Your task to perform on an android device: When is my next appointment? Image 0: 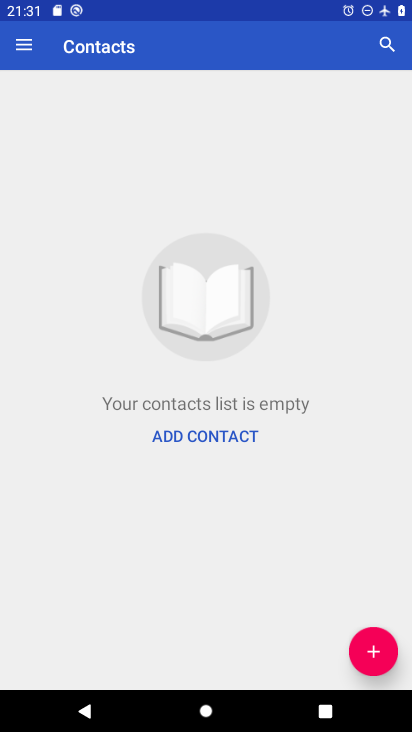
Step 0: press home button
Your task to perform on an android device: When is my next appointment? Image 1: 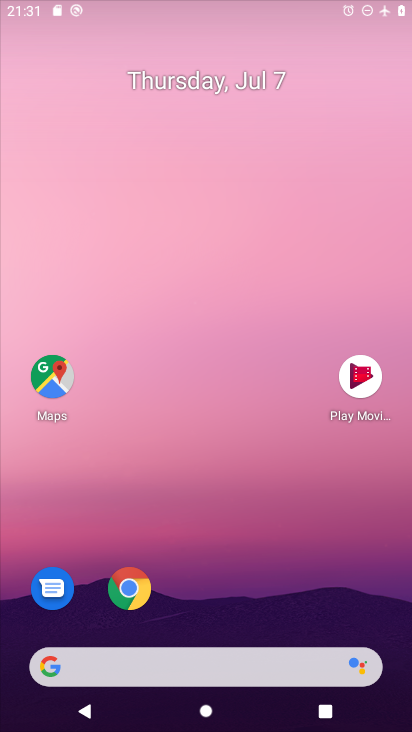
Step 1: drag from (234, 587) to (251, 146)
Your task to perform on an android device: When is my next appointment? Image 2: 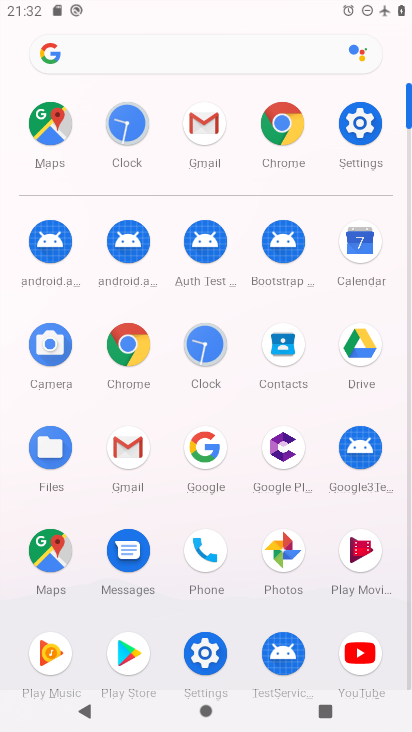
Step 2: click (359, 241)
Your task to perform on an android device: When is my next appointment? Image 3: 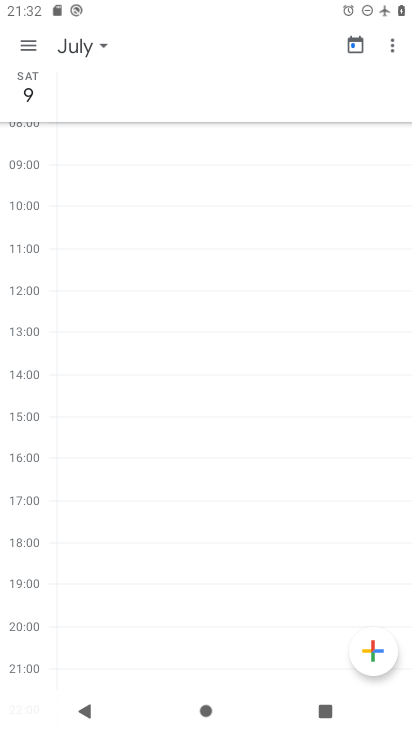
Step 3: click (30, 43)
Your task to perform on an android device: When is my next appointment? Image 4: 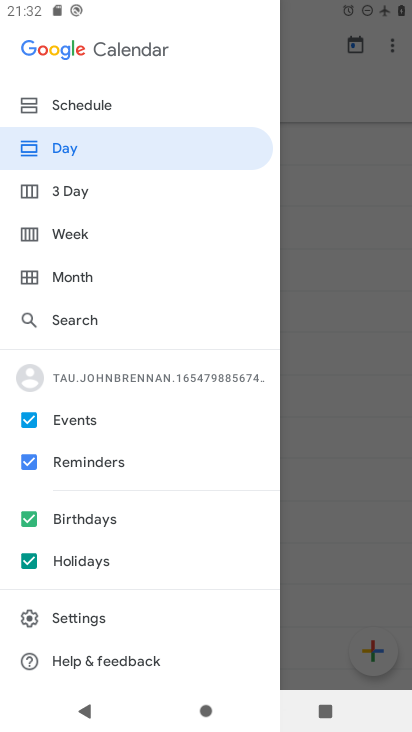
Step 4: click (82, 274)
Your task to perform on an android device: When is my next appointment? Image 5: 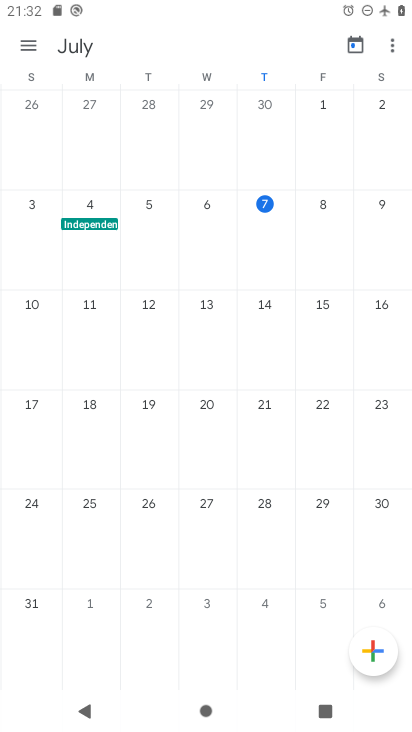
Step 5: click (384, 213)
Your task to perform on an android device: When is my next appointment? Image 6: 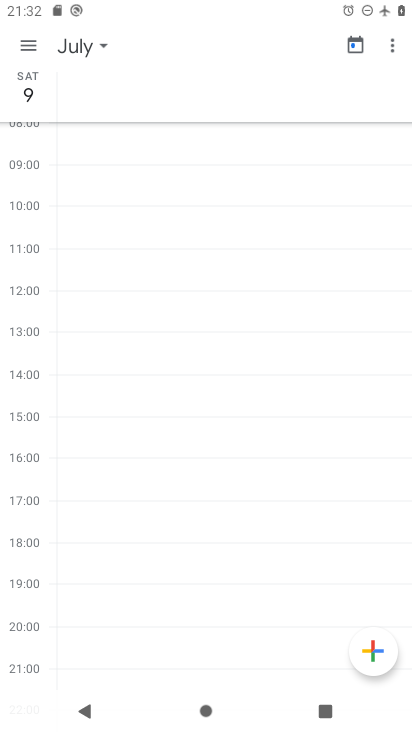
Step 6: task complete